Your task to perform on an android device: What is the news today? Image 0: 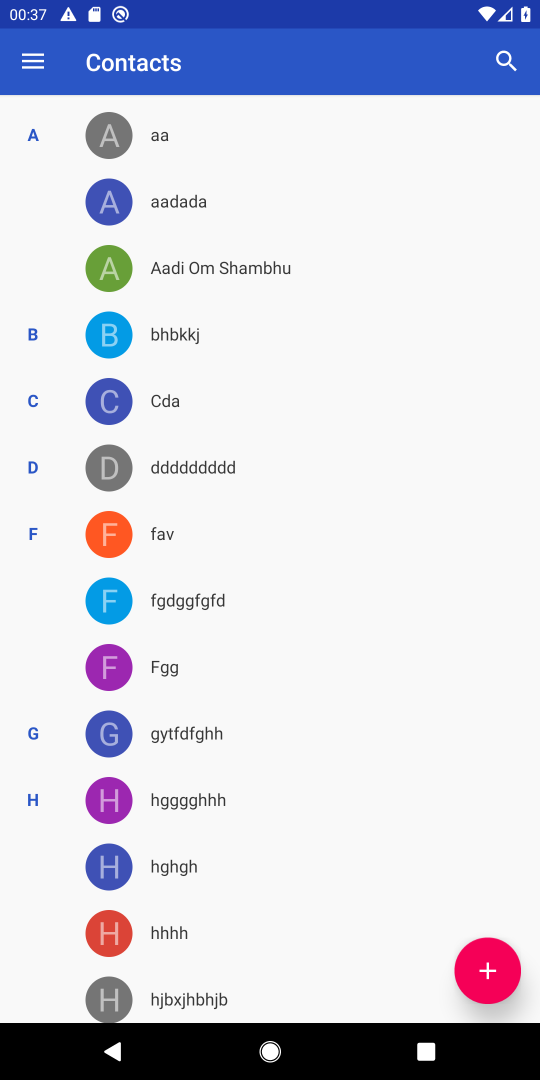
Step 0: press home button
Your task to perform on an android device: What is the news today? Image 1: 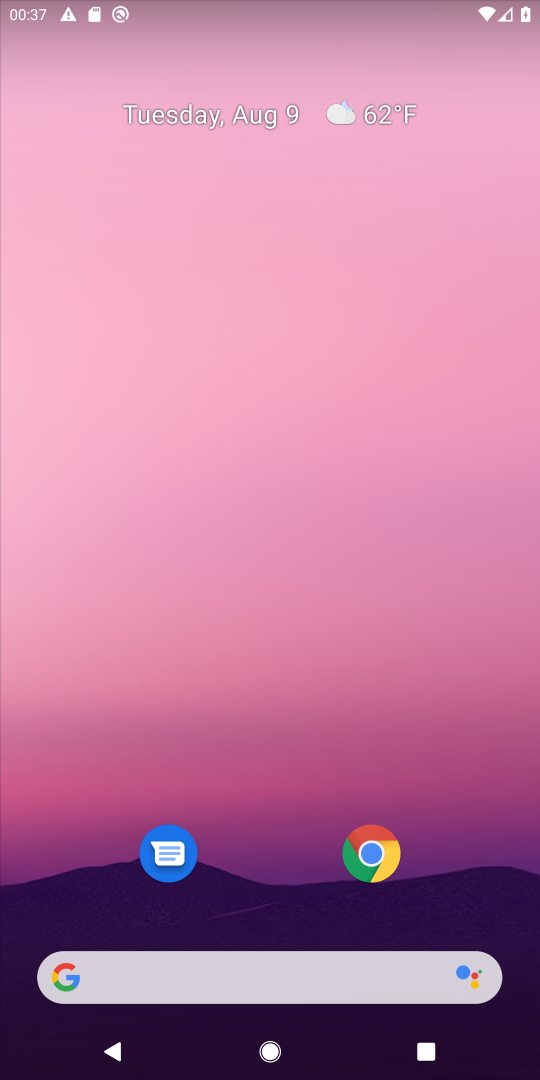
Step 1: click (201, 983)
Your task to perform on an android device: What is the news today? Image 2: 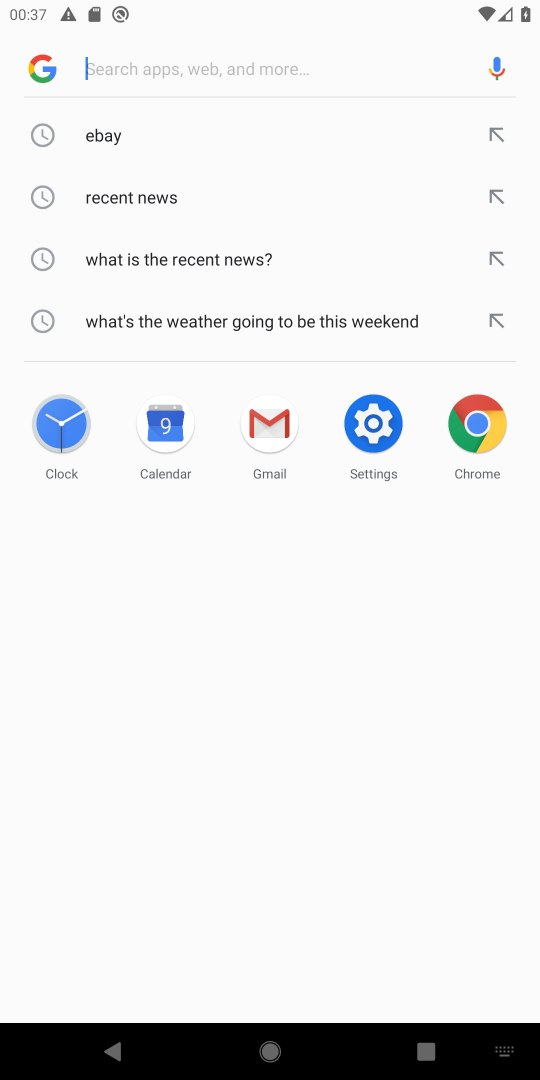
Step 2: type "what is the news today"
Your task to perform on an android device: What is the news today? Image 3: 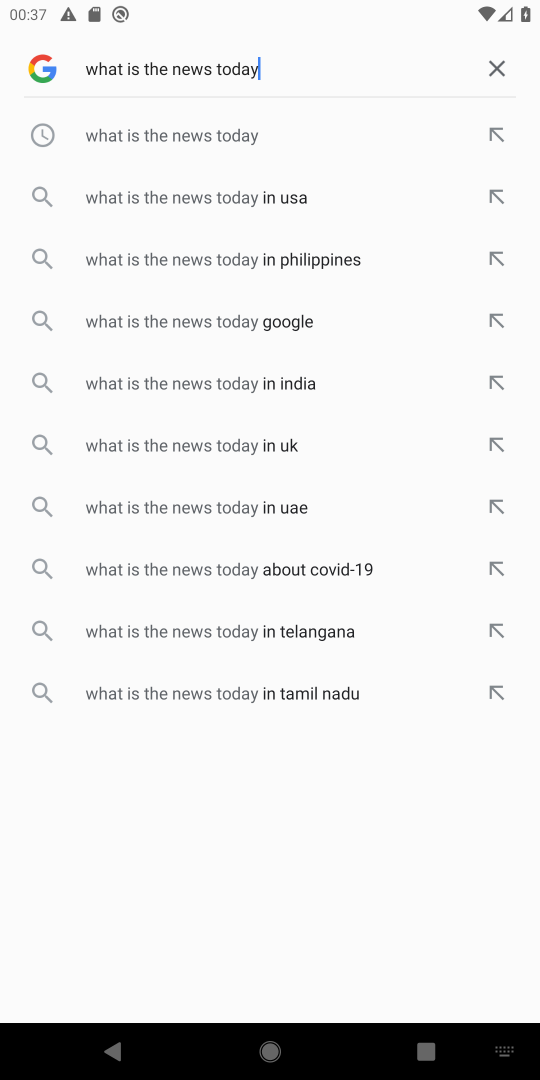
Step 3: click (245, 133)
Your task to perform on an android device: What is the news today? Image 4: 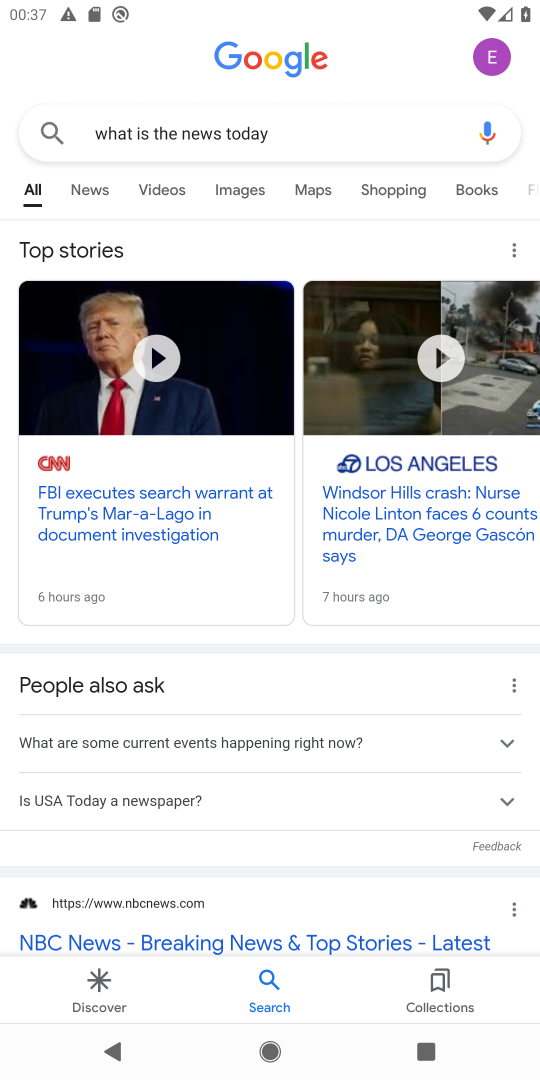
Step 4: task complete